Your task to perform on an android device: Open Chrome and go to the settings page Image 0: 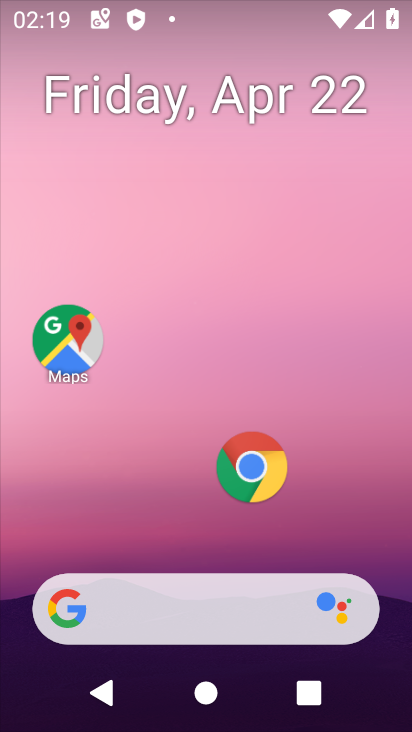
Step 0: click (260, 465)
Your task to perform on an android device: Open Chrome and go to the settings page Image 1: 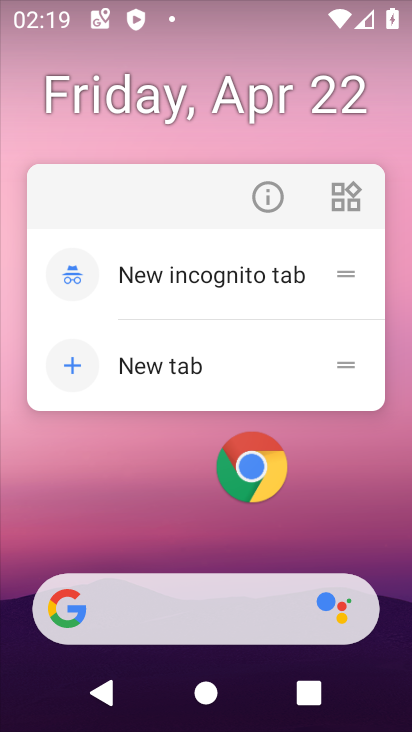
Step 1: click (270, 193)
Your task to perform on an android device: Open Chrome and go to the settings page Image 2: 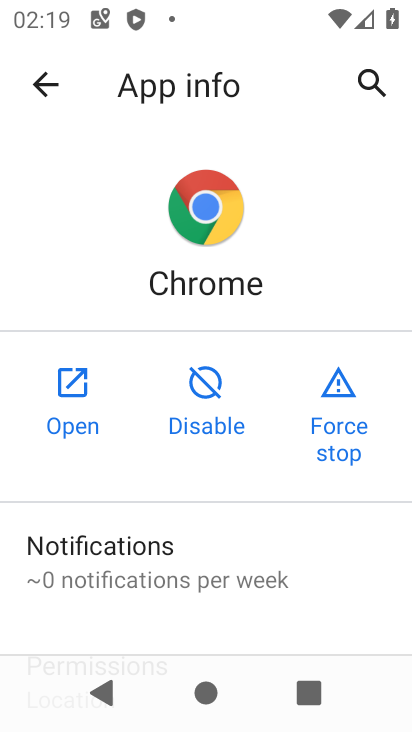
Step 2: click (59, 403)
Your task to perform on an android device: Open Chrome and go to the settings page Image 3: 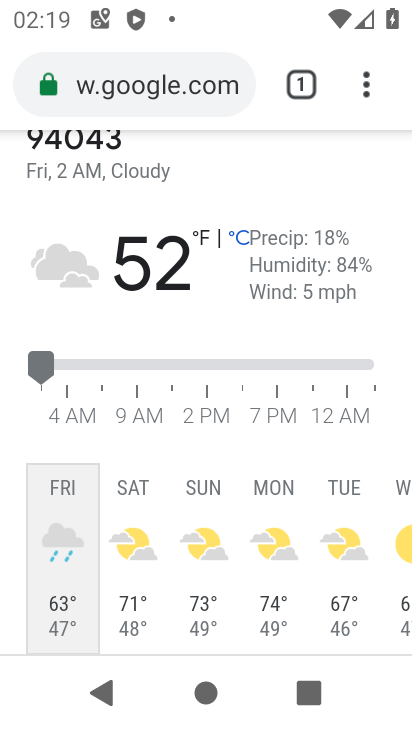
Step 3: click (375, 89)
Your task to perform on an android device: Open Chrome and go to the settings page Image 4: 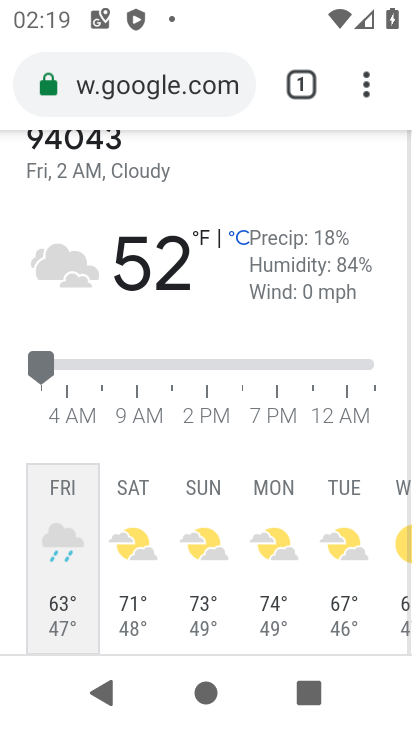
Step 4: click (373, 87)
Your task to perform on an android device: Open Chrome and go to the settings page Image 5: 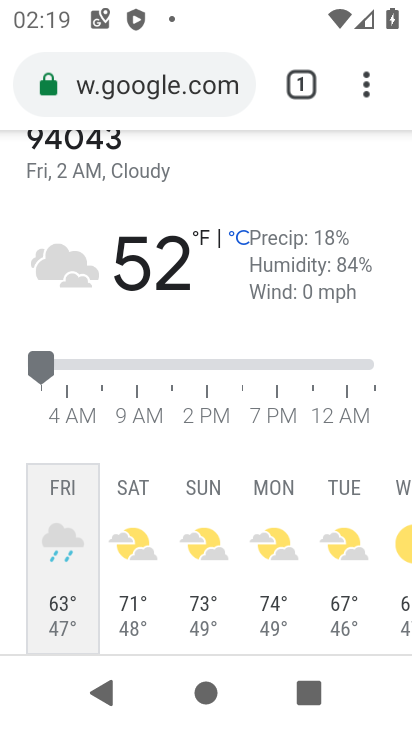
Step 5: click (367, 88)
Your task to perform on an android device: Open Chrome and go to the settings page Image 6: 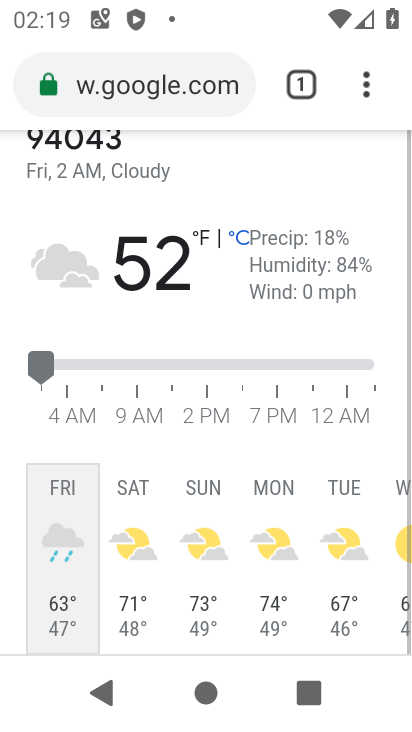
Step 6: click (366, 87)
Your task to perform on an android device: Open Chrome and go to the settings page Image 7: 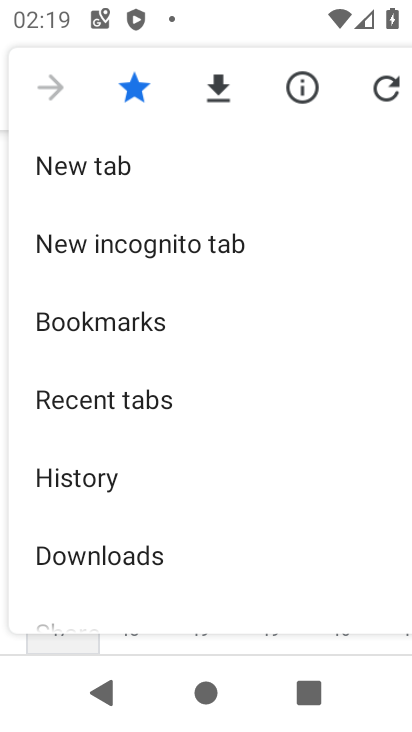
Step 7: drag from (84, 571) to (154, 233)
Your task to perform on an android device: Open Chrome and go to the settings page Image 8: 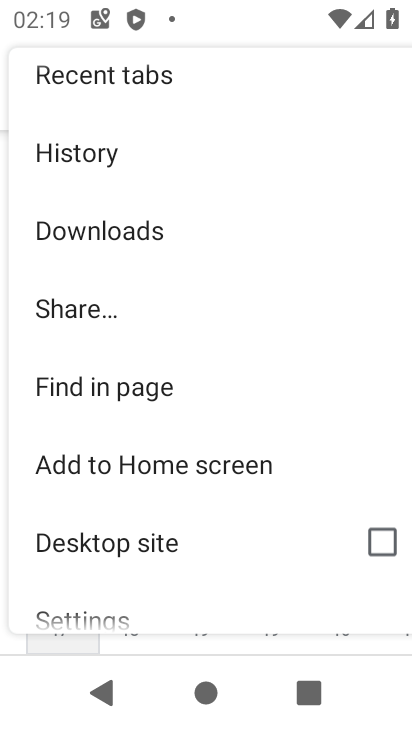
Step 8: drag from (75, 561) to (154, 255)
Your task to perform on an android device: Open Chrome and go to the settings page Image 9: 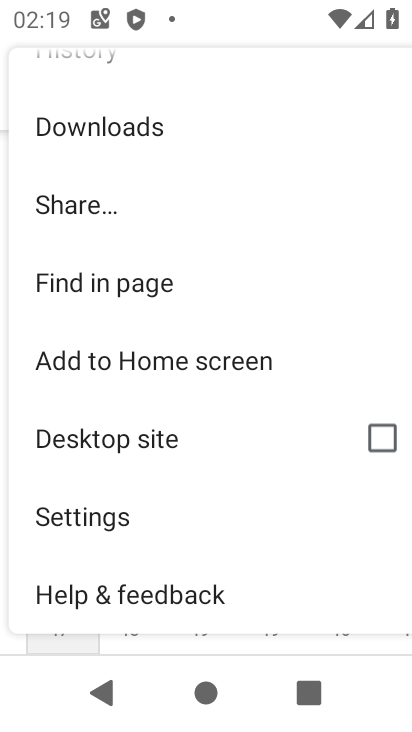
Step 9: click (61, 523)
Your task to perform on an android device: Open Chrome and go to the settings page Image 10: 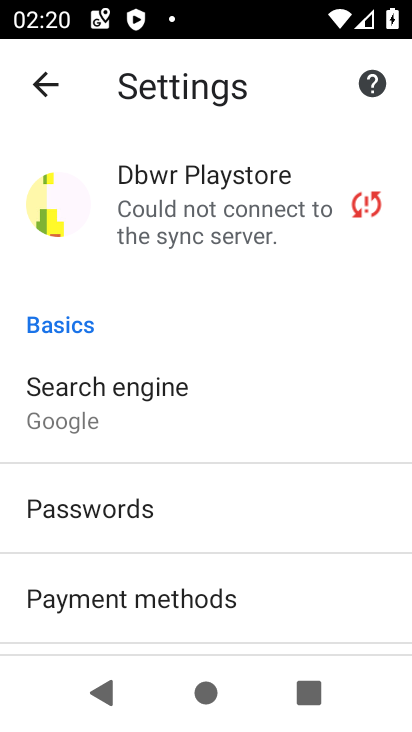
Step 10: task complete